Your task to perform on an android device: Is it going to rain this weekend? Image 0: 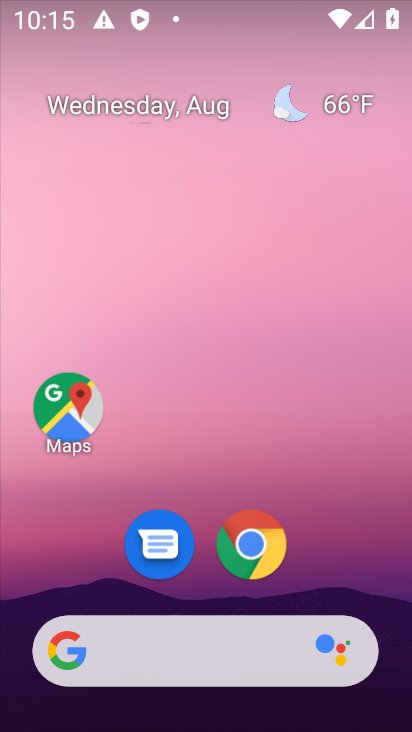
Step 0: drag from (275, 429) to (349, 10)
Your task to perform on an android device: Is it going to rain this weekend? Image 1: 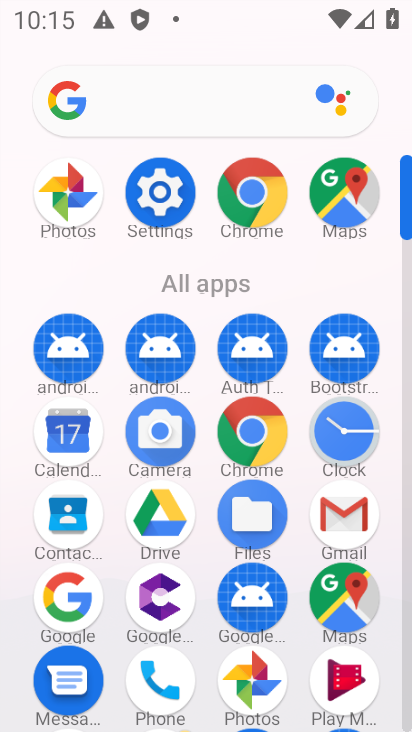
Step 1: click (266, 208)
Your task to perform on an android device: Is it going to rain this weekend? Image 2: 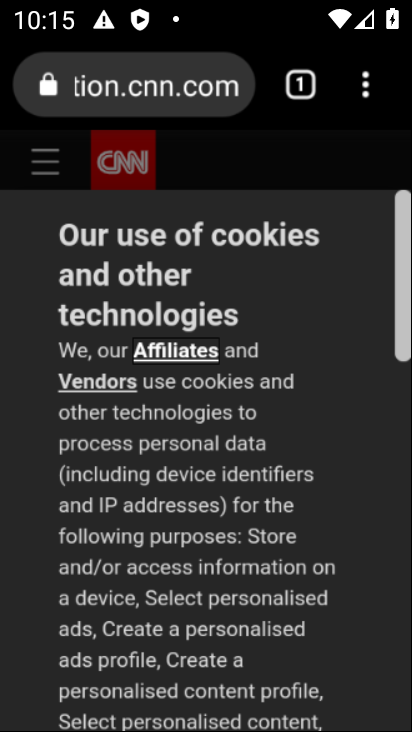
Step 2: task complete